Your task to perform on an android device: Open Google Chrome and open the bookmarks view Image 0: 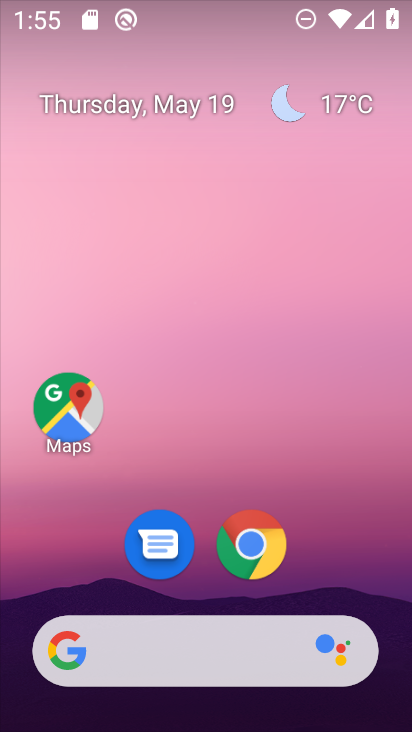
Step 0: click (246, 536)
Your task to perform on an android device: Open Google Chrome and open the bookmarks view Image 1: 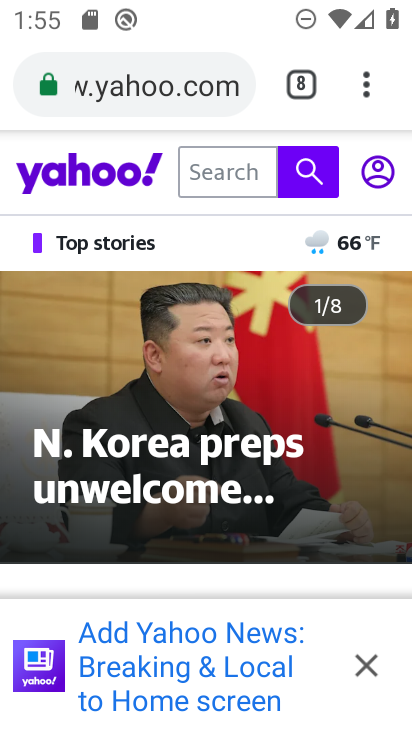
Step 1: click (366, 101)
Your task to perform on an android device: Open Google Chrome and open the bookmarks view Image 2: 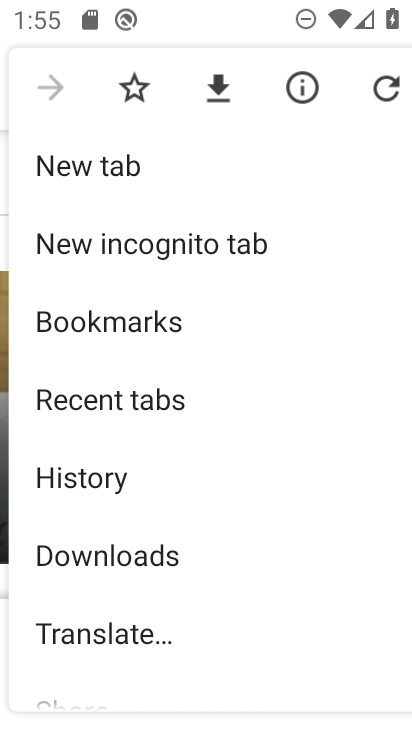
Step 2: click (100, 321)
Your task to perform on an android device: Open Google Chrome and open the bookmarks view Image 3: 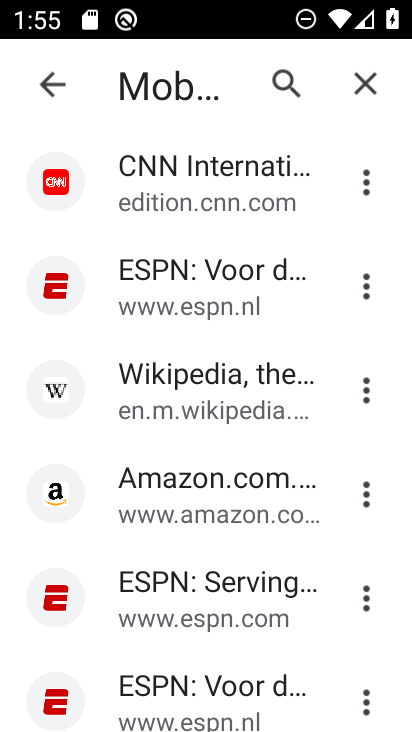
Step 3: task complete